Your task to perform on an android device: toggle wifi Image 0: 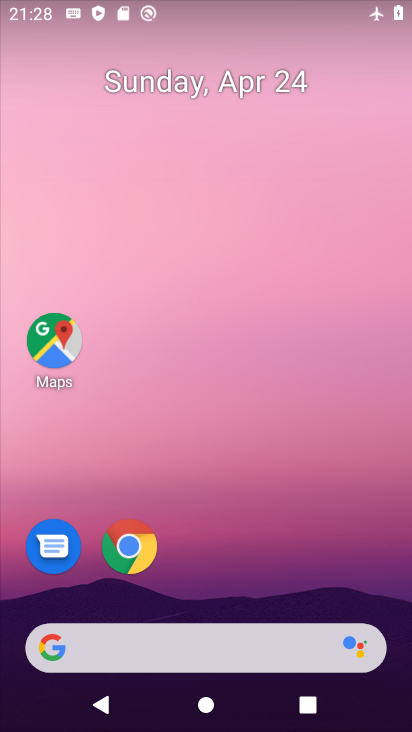
Step 0: drag from (293, 557) to (285, 193)
Your task to perform on an android device: toggle wifi Image 1: 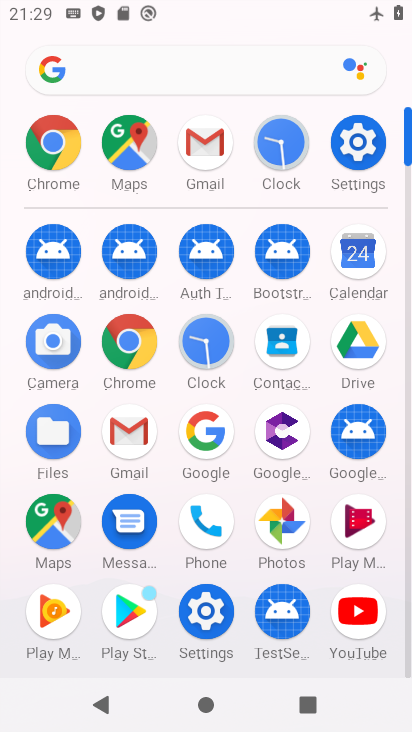
Step 1: click (344, 146)
Your task to perform on an android device: toggle wifi Image 2: 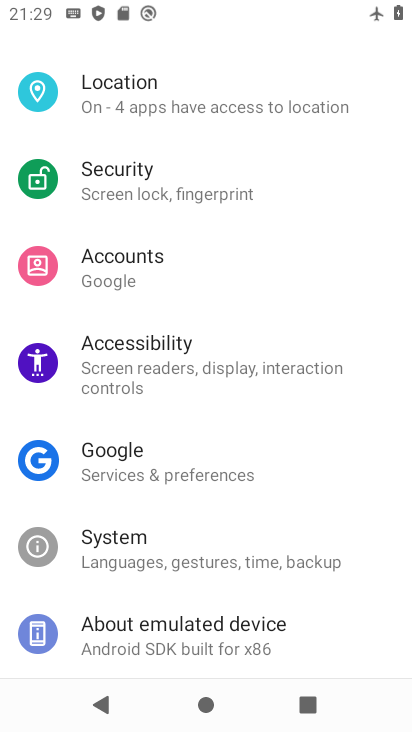
Step 2: drag from (222, 170) to (194, 718)
Your task to perform on an android device: toggle wifi Image 3: 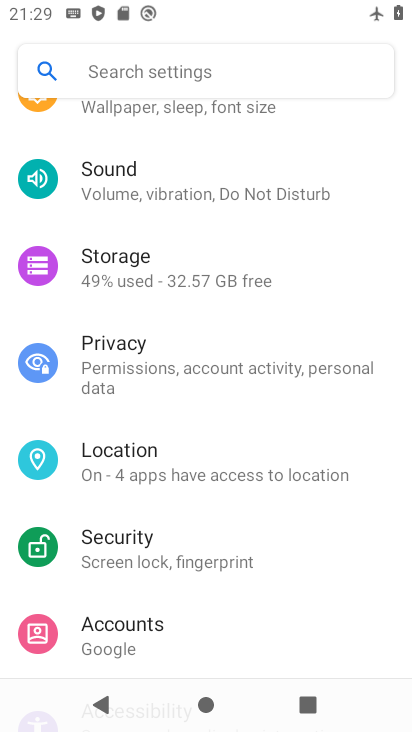
Step 3: drag from (188, 185) to (205, 717)
Your task to perform on an android device: toggle wifi Image 4: 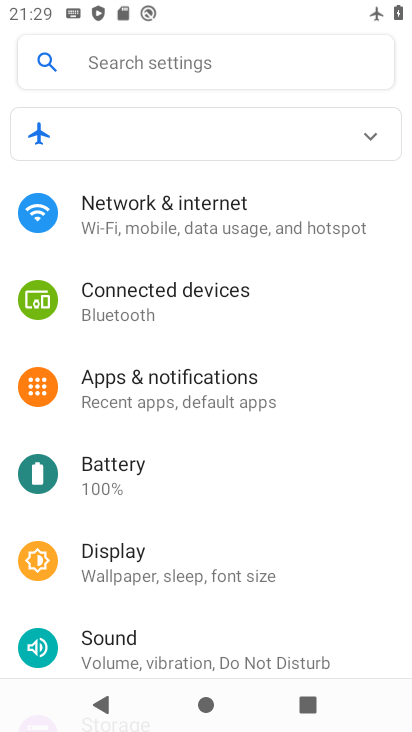
Step 4: click (241, 234)
Your task to perform on an android device: toggle wifi Image 5: 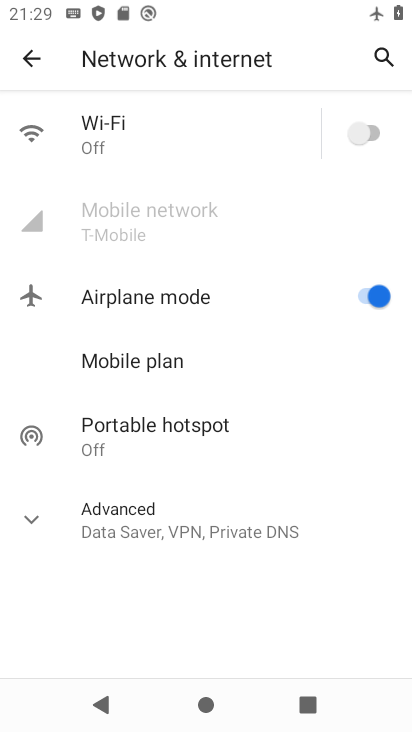
Step 5: click (374, 123)
Your task to perform on an android device: toggle wifi Image 6: 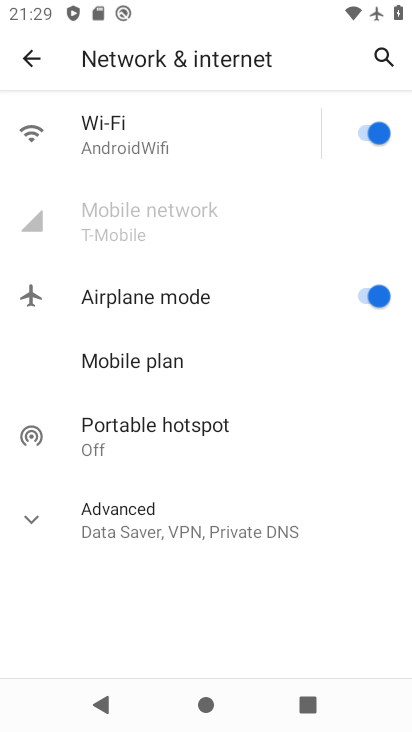
Step 6: task complete